Your task to perform on an android device: Search for Italian restaurants on Maps Image 0: 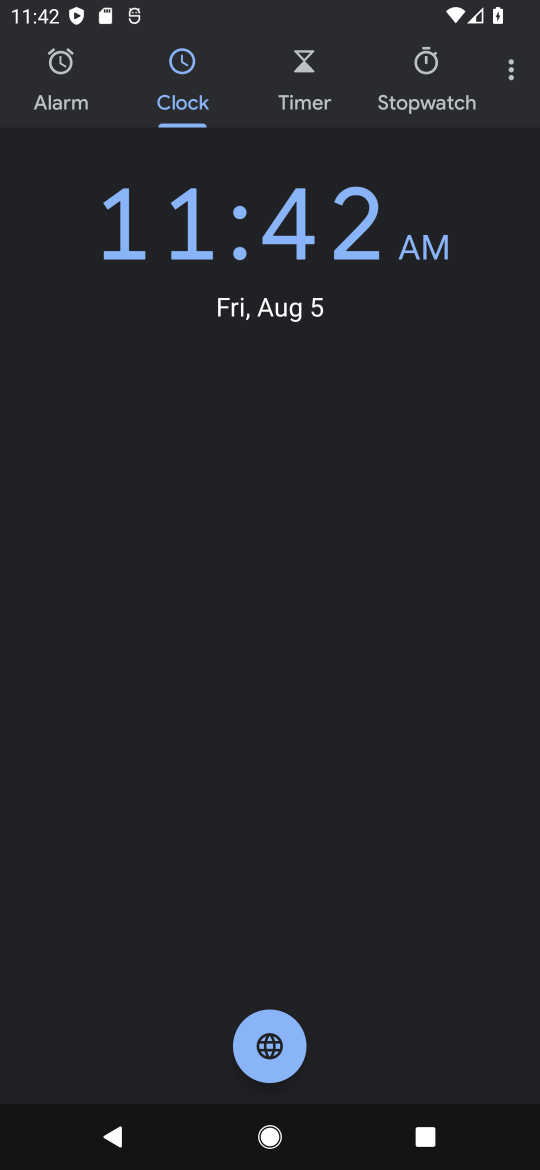
Step 0: press home button
Your task to perform on an android device: Search for Italian restaurants on Maps Image 1: 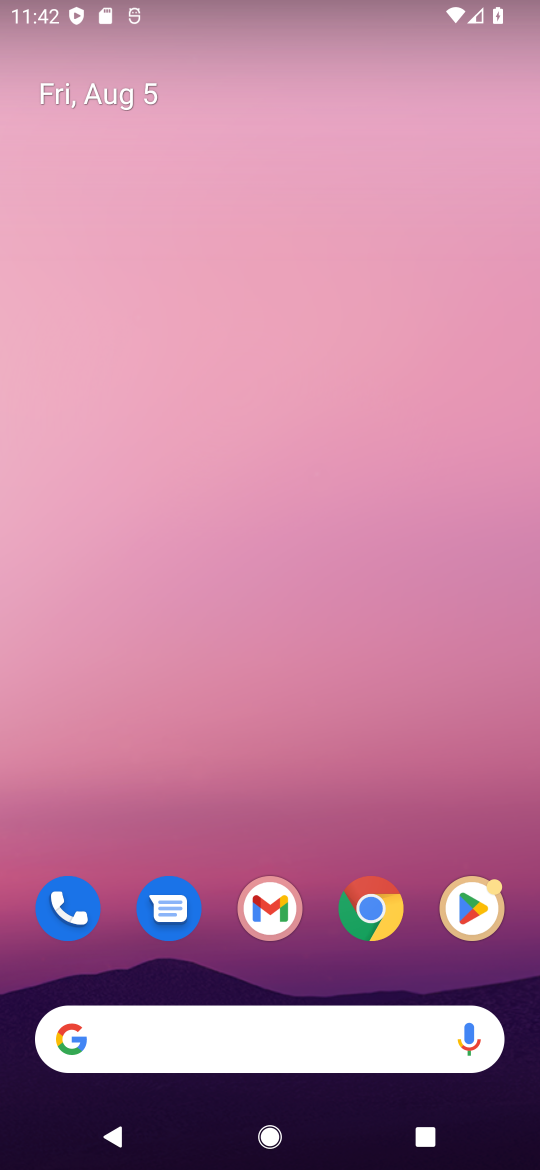
Step 1: drag from (486, 796) to (348, 58)
Your task to perform on an android device: Search for Italian restaurants on Maps Image 2: 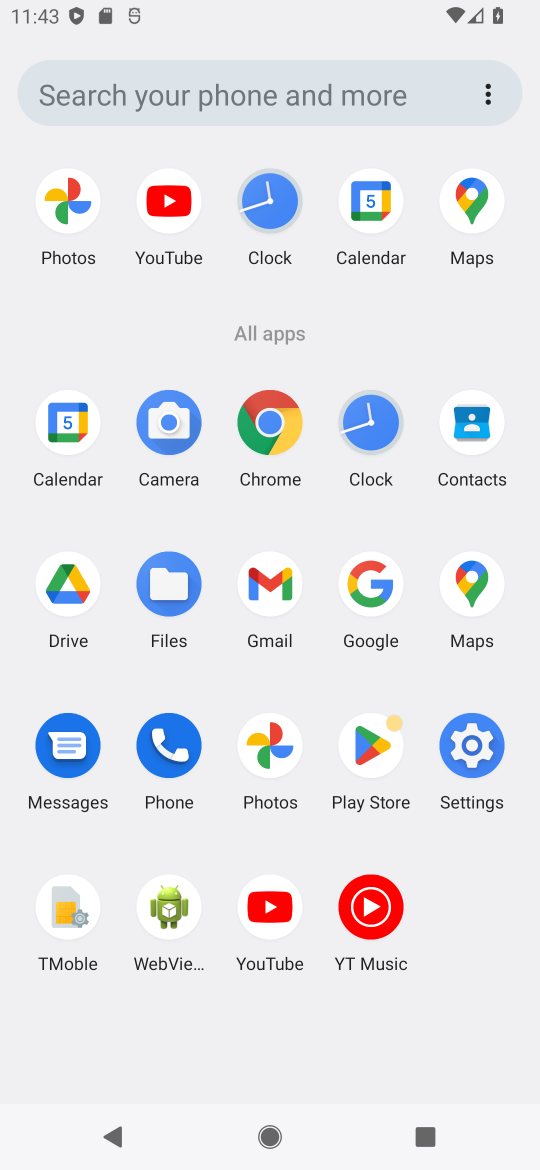
Step 2: click (460, 199)
Your task to perform on an android device: Search for Italian restaurants on Maps Image 3: 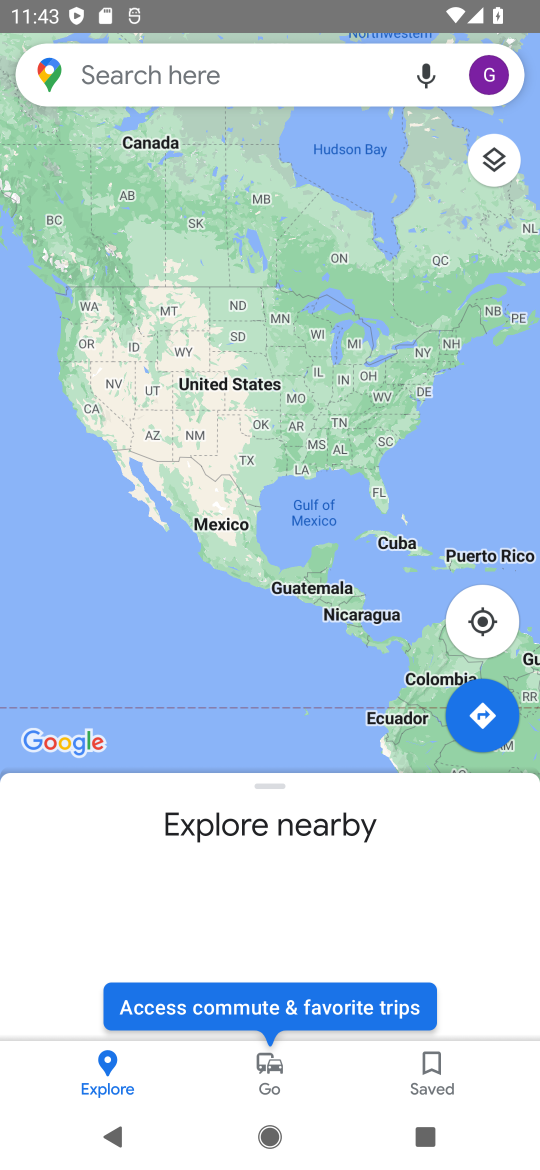
Step 3: drag from (494, 76) to (474, 237)
Your task to perform on an android device: Search for Italian restaurants on Maps Image 4: 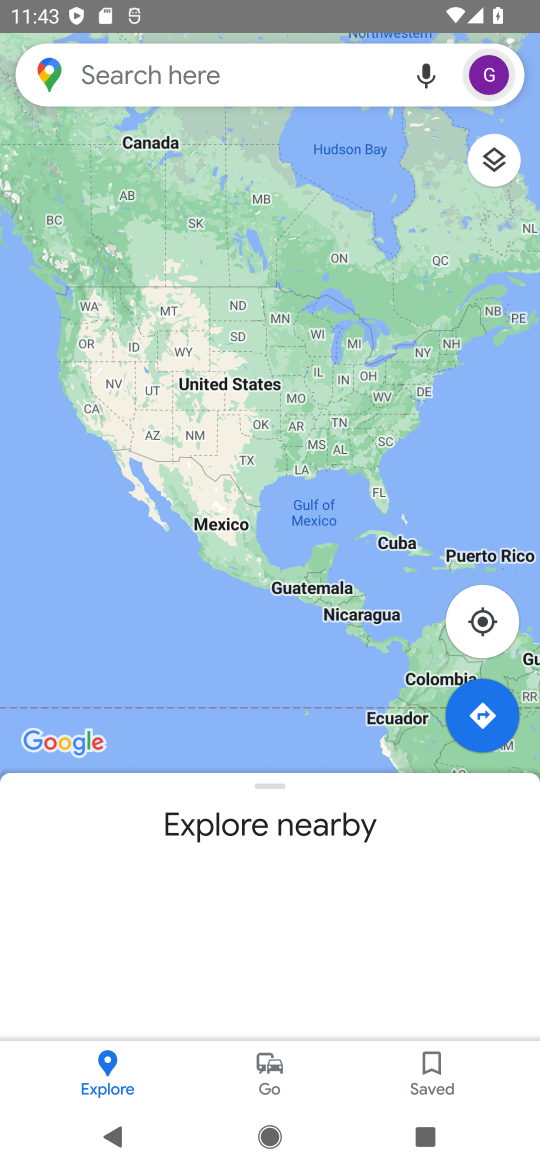
Step 4: click (300, 72)
Your task to perform on an android device: Search for Italian restaurants on Maps Image 5: 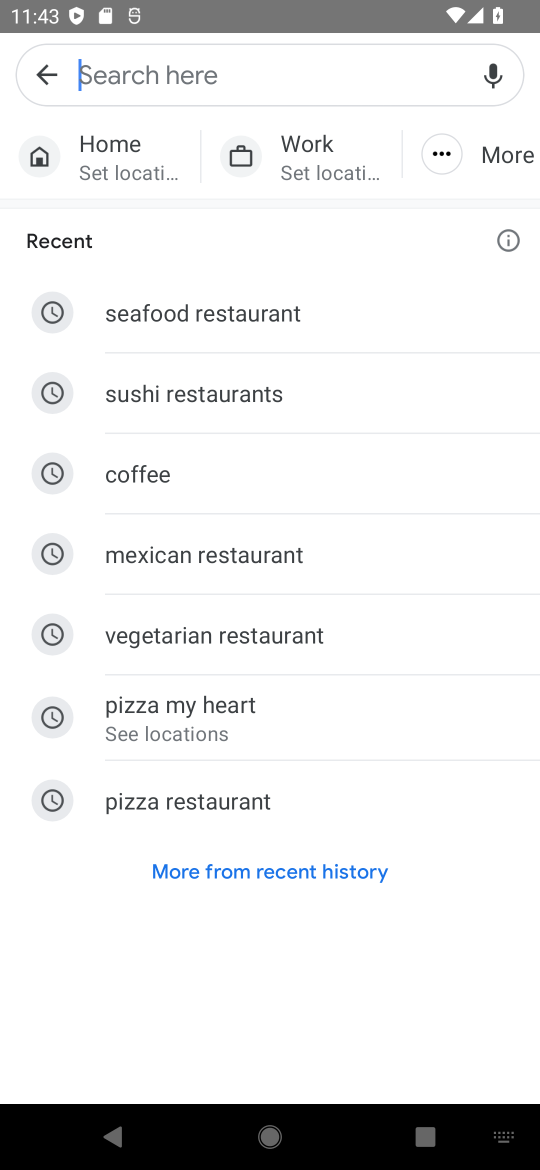
Step 5: type "Italian restaurants"
Your task to perform on an android device: Search for Italian restaurants on Maps Image 6: 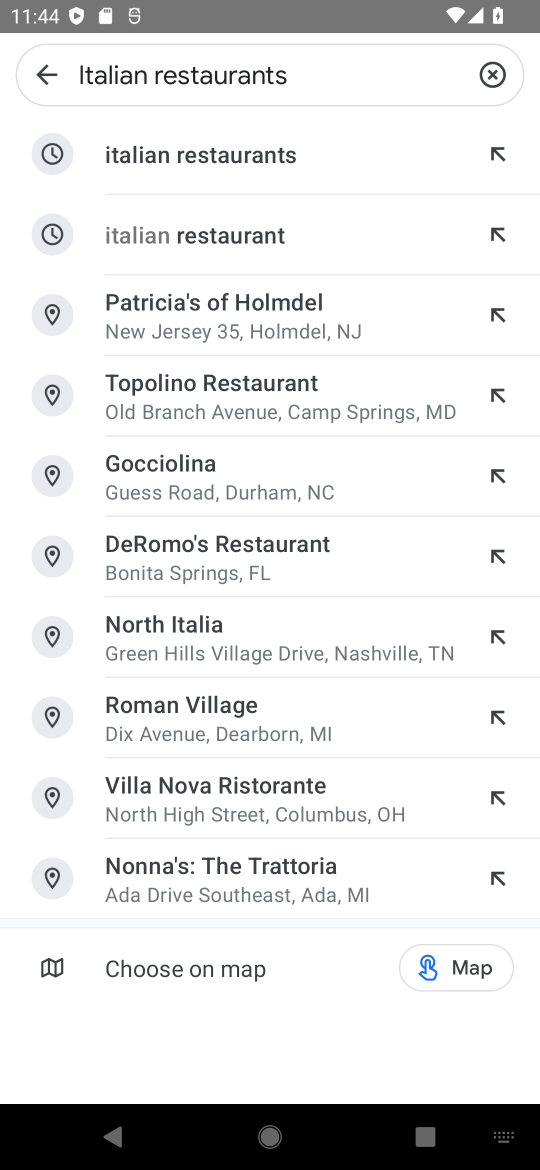
Step 6: click (216, 170)
Your task to perform on an android device: Search for Italian restaurants on Maps Image 7: 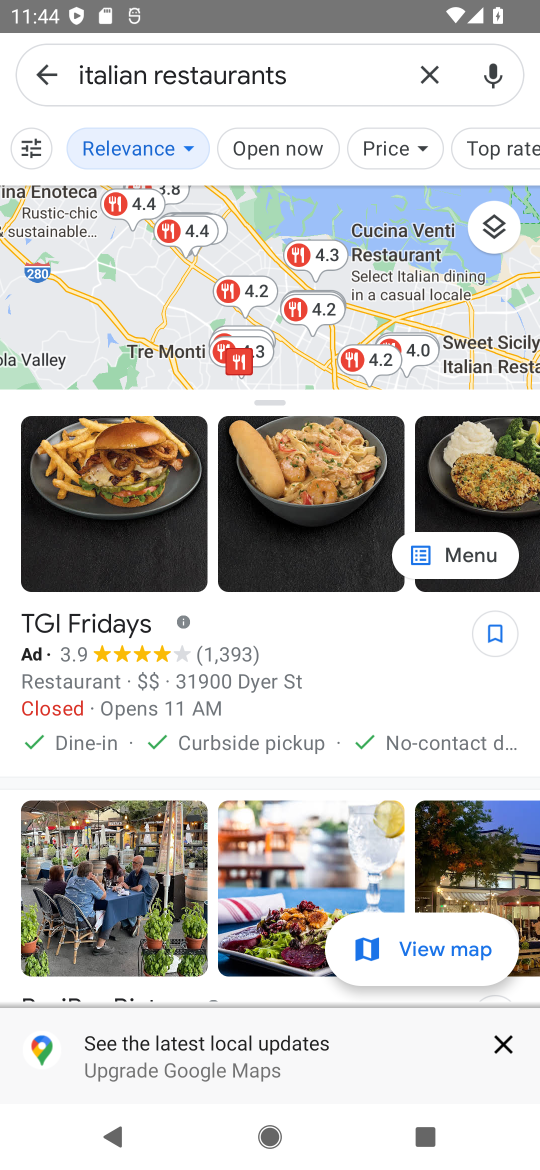
Step 7: task complete